Your task to perform on an android device: read, delete, or share a saved page in the chrome app Image 0: 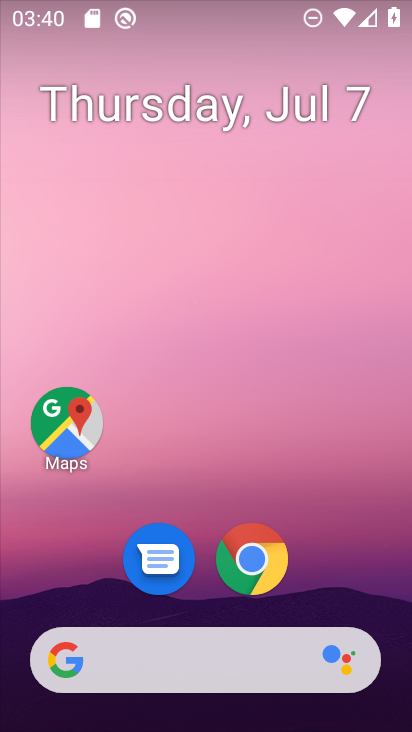
Step 0: drag from (356, 609) to (385, 189)
Your task to perform on an android device: read, delete, or share a saved page in the chrome app Image 1: 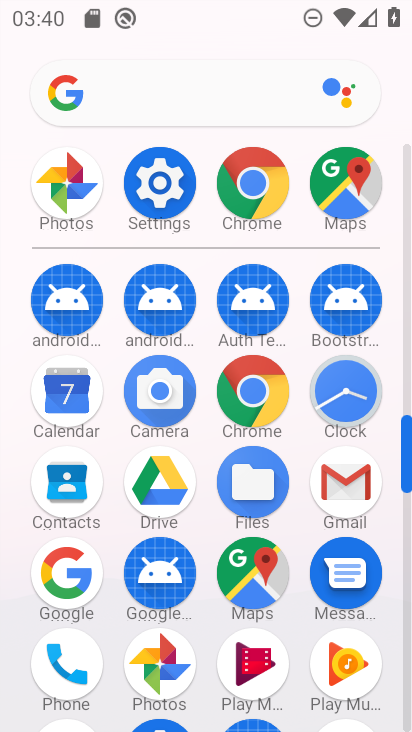
Step 1: click (270, 397)
Your task to perform on an android device: read, delete, or share a saved page in the chrome app Image 2: 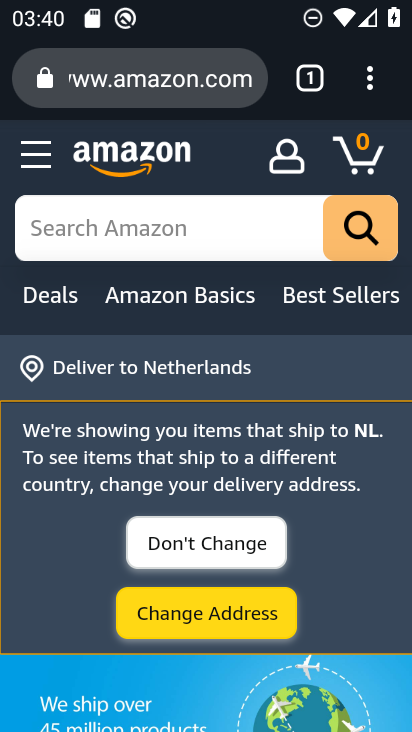
Step 2: click (367, 85)
Your task to perform on an android device: read, delete, or share a saved page in the chrome app Image 3: 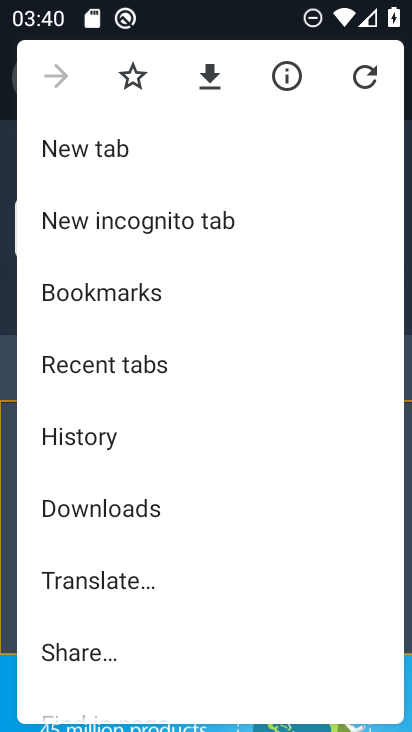
Step 3: drag from (332, 381) to (339, 310)
Your task to perform on an android device: read, delete, or share a saved page in the chrome app Image 4: 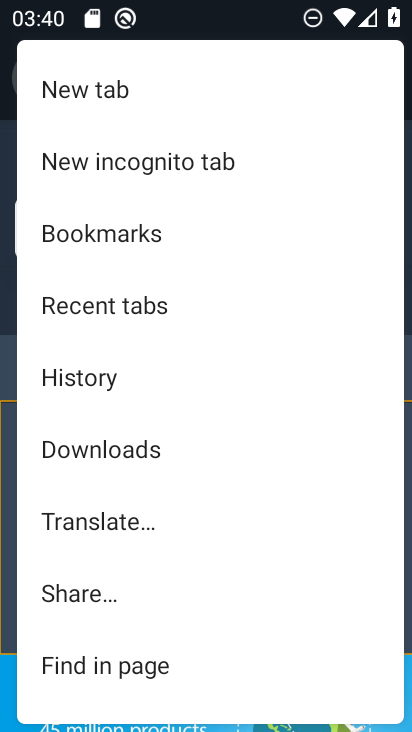
Step 4: drag from (352, 441) to (349, 329)
Your task to perform on an android device: read, delete, or share a saved page in the chrome app Image 5: 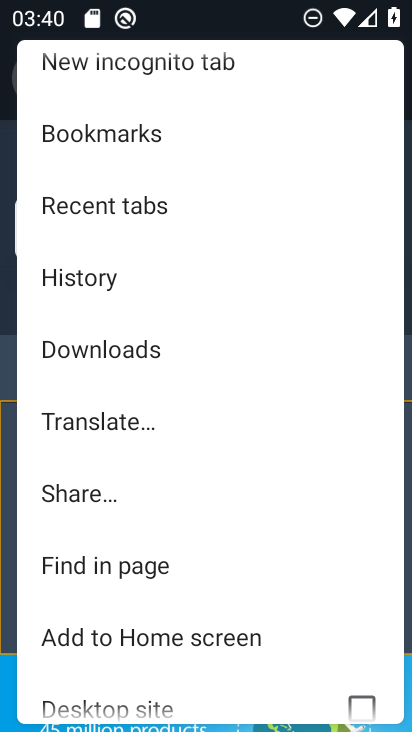
Step 5: drag from (327, 481) to (319, 304)
Your task to perform on an android device: read, delete, or share a saved page in the chrome app Image 6: 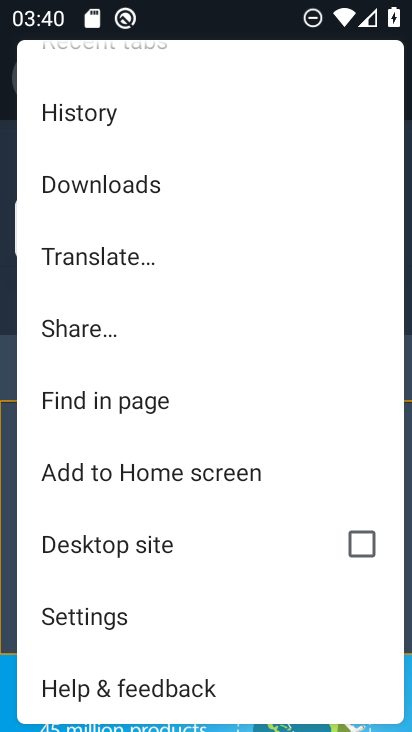
Step 6: click (157, 191)
Your task to perform on an android device: read, delete, or share a saved page in the chrome app Image 7: 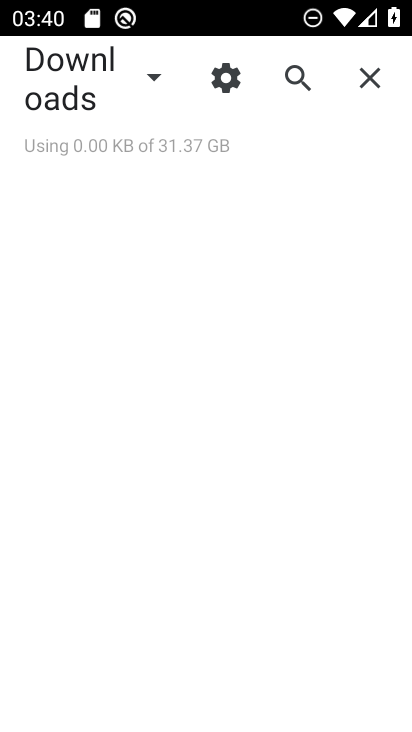
Step 7: click (148, 71)
Your task to perform on an android device: read, delete, or share a saved page in the chrome app Image 8: 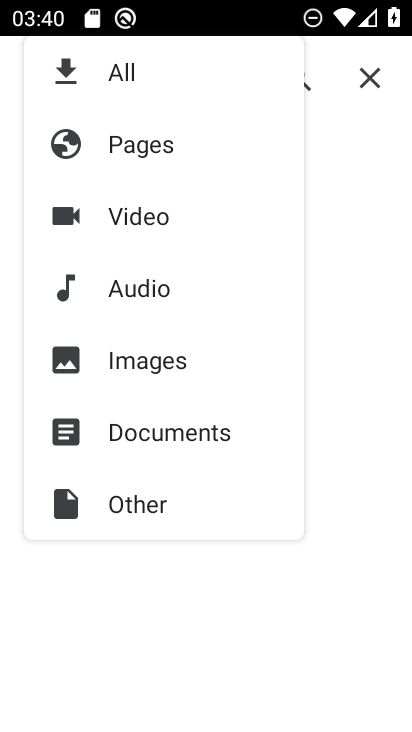
Step 8: click (156, 145)
Your task to perform on an android device: read, delete, or share a saved page in the chrome app Image 9: 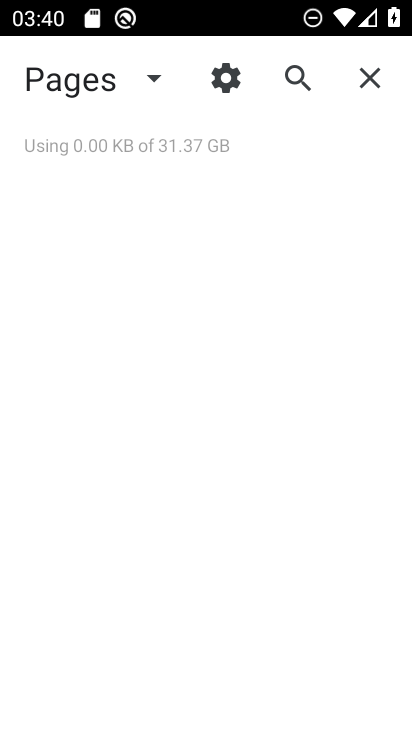
Step 9: task complete